Your task to perform on an android device: turn notification dots on Image 0: 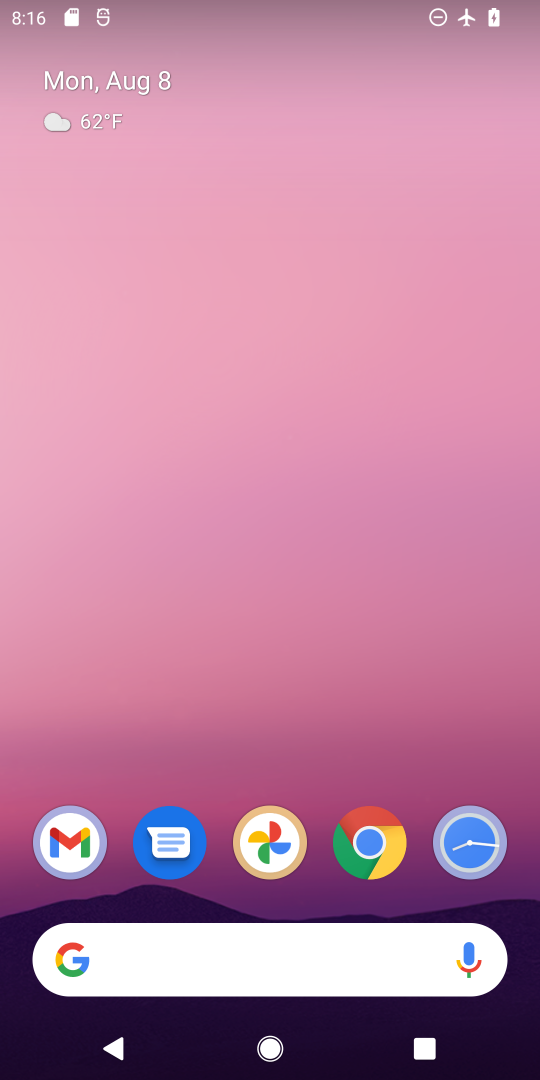
Step 0: drag from (337, 916) to (422, 27)
Your task to perform on an android device: turn notification dots on Image 1: 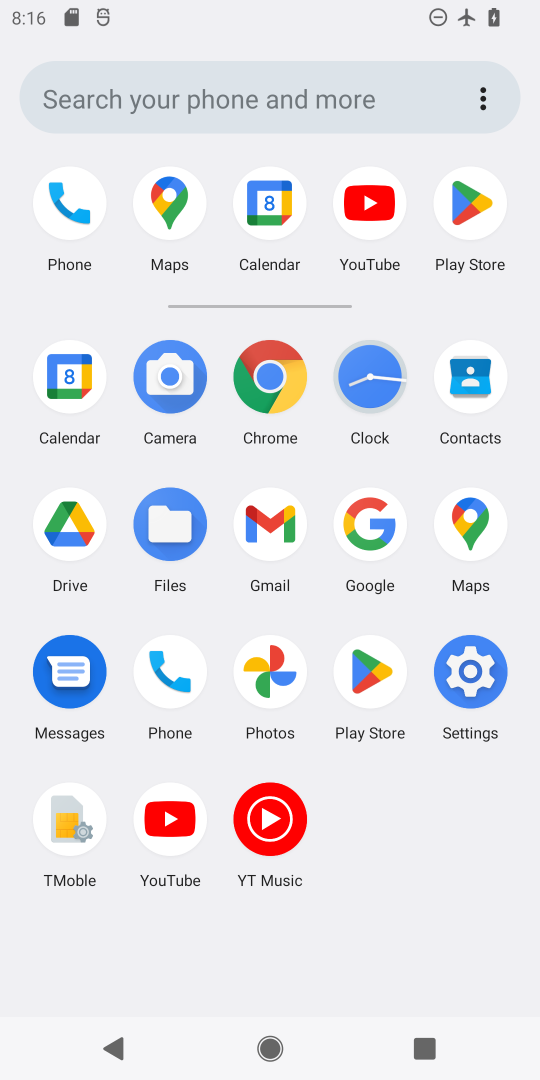
Step 1: click (472, 653)
Your task to perform on an android device: turn notification dots on Image 2: 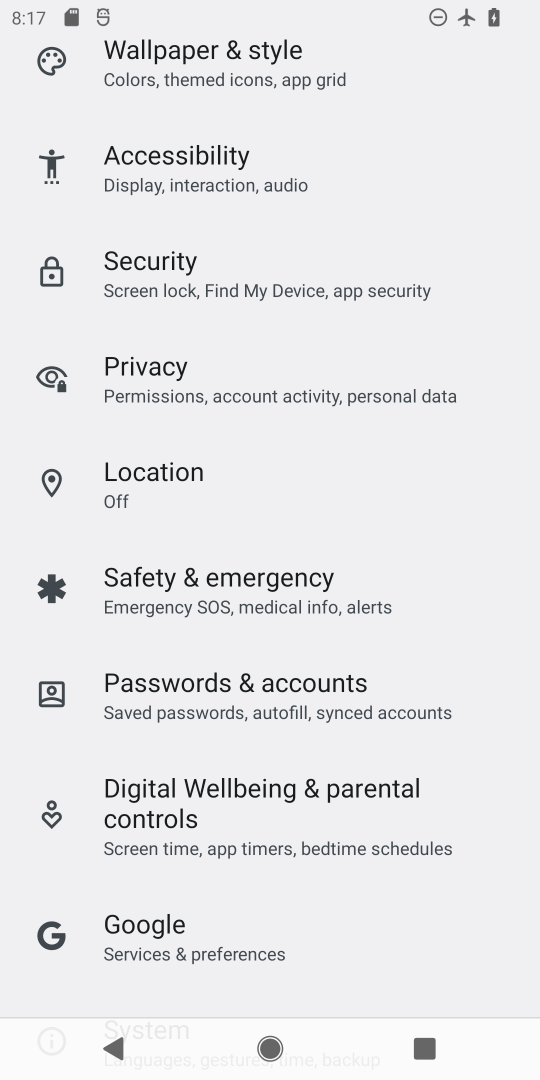
Step 2: drag from (186, 379) to (230, 709)
Your task to perform on an android device: turn notification dots on Image 3: 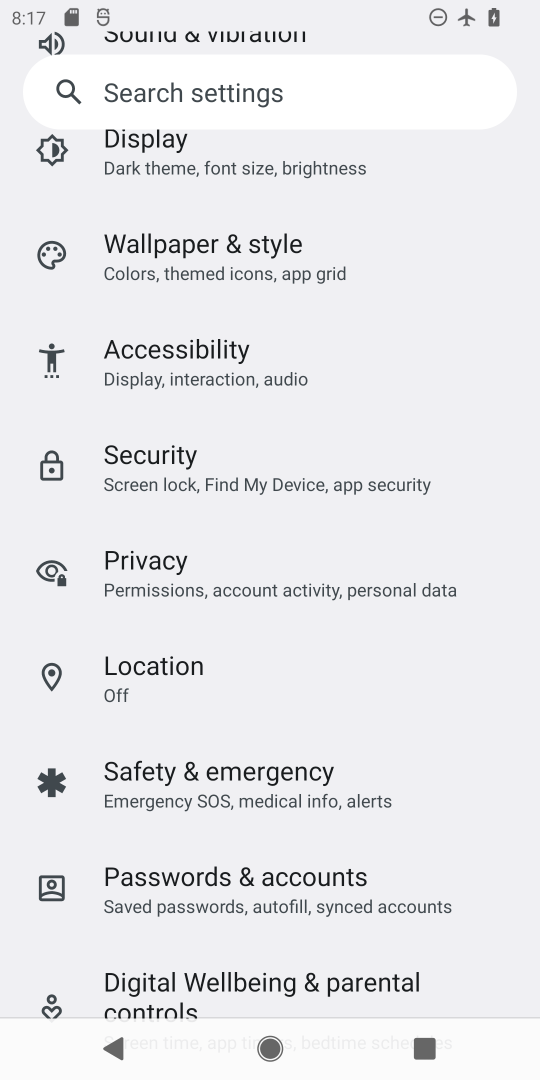
Step 3: drag from (223, 306) to (283, 967)
Your task to perform on an android device: turn notification dots on Image 4: 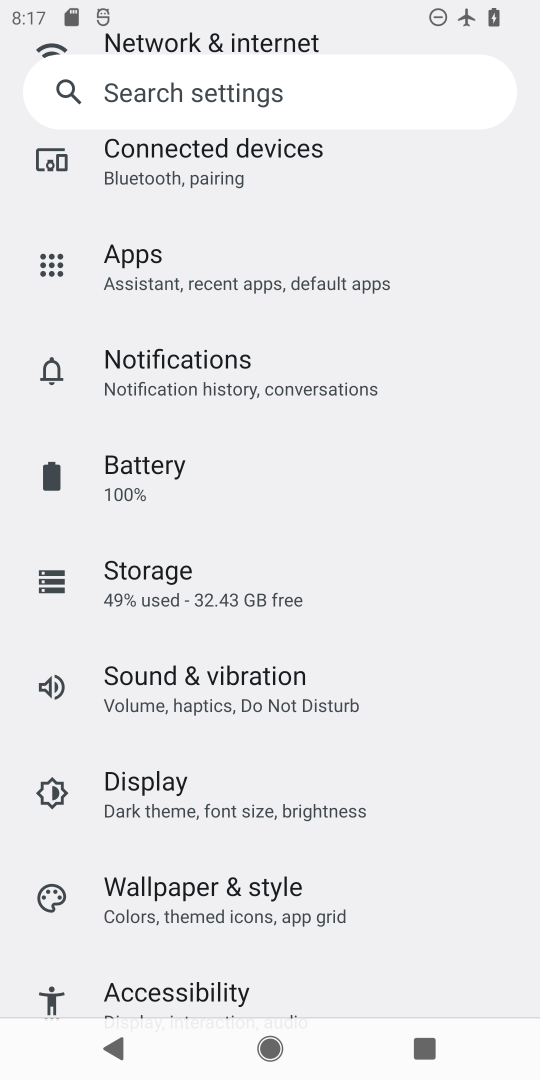
Step 4: click (230, 383)
Your task to perform on an android device: turn notification dots on Image 5: 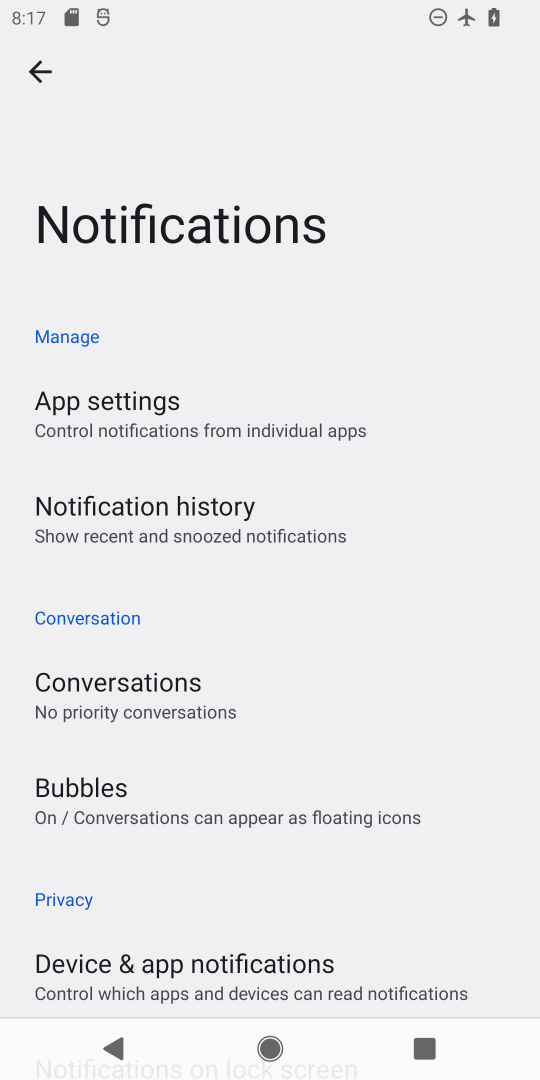
Step 5: task complete